Your task to perform on an android device: Check the new Jordans on Nike. Image 0: 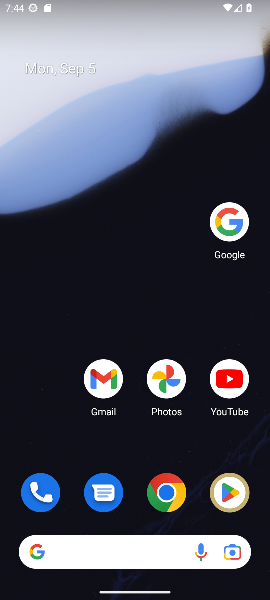
Step 0: click (231, 221)
Your task to perform on an android device: Check the new Jordans on Nike. Image 1: 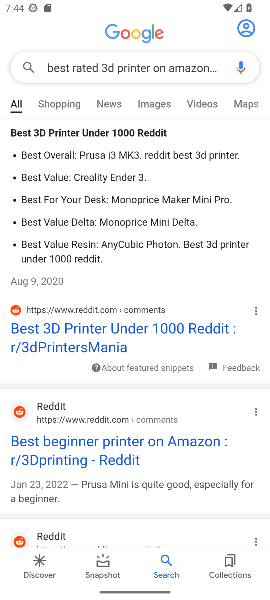
Step 1: click (173, 60)
Your task to perform on an android device: Check the new Jordans on Nike. Image 2: 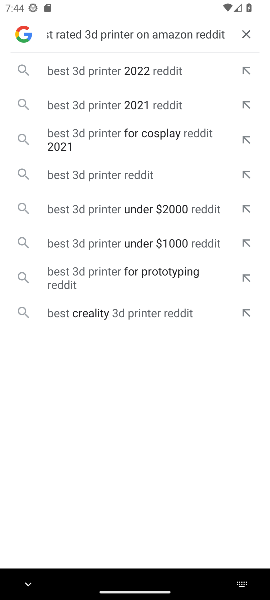
Step 2: click (237, 32)
Your task to perform on an android device: Check the new Jordans on Nike. Image 3: 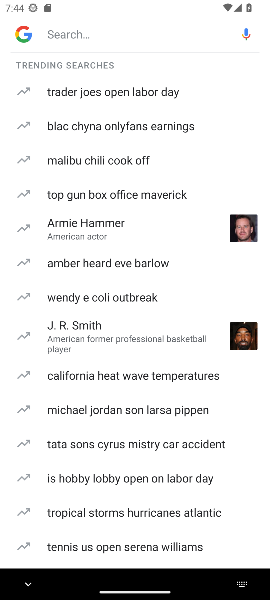
Step 3: click (149, 32)
Your task to perform on an android device: Check the new Jordans on Nike. Image 4: 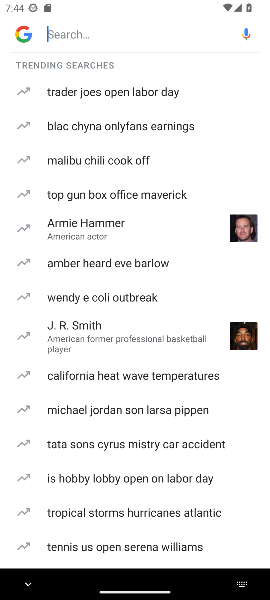
Step 4: type " the new Jordans on Nike "
Your task to perform on an android device: Check the new Jordans on Nike. Image 5: 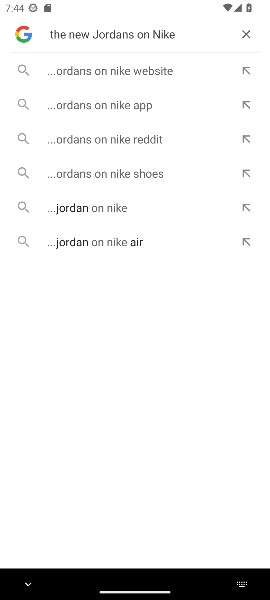
Step 5: click (125, 63)
Your task to perform on an android device: Check the new Jordans on Nike. Image 6: 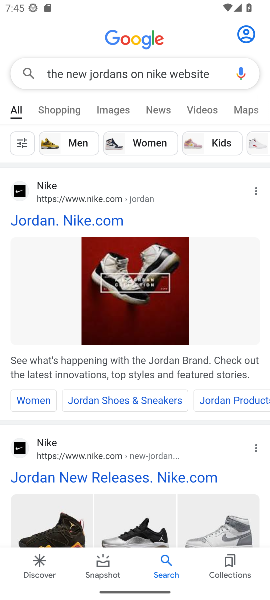
Step 6: click (68, 222)
Your task to perform on an android device: Check the new Jordans on Nike. Image 7: 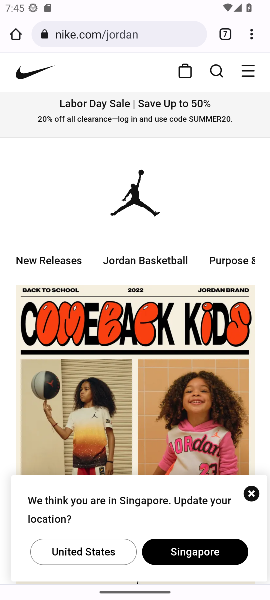
Step 7: drag from (155, 448) to (187, 154)
Your task to perform on an android device: Check the new Jordans on Nike. Image 8: 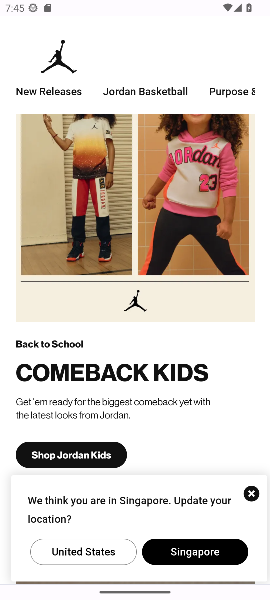
Step 8: drag from (186, 396) to (241, 27)
Your task to perform on an android device: Check the new Jordans on Nike. Image 9: 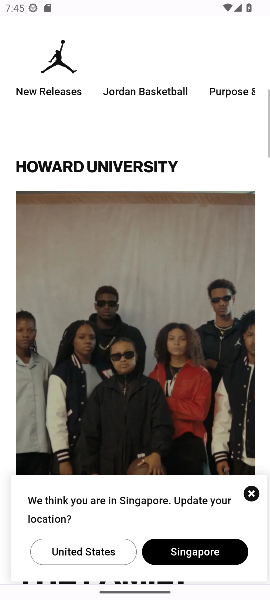
Step 9: click (250, 492)
Your task to perform on an android device: Check the new Jordans on Nike. Image 10: 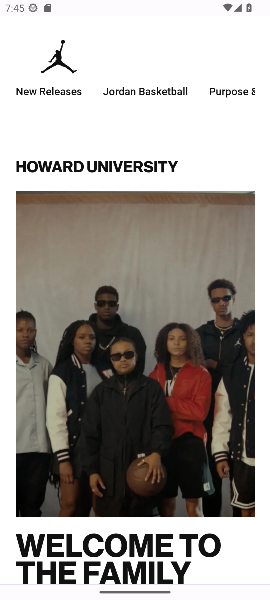
Step 10: task complete